Your task to perform on an android device: add a contact Image 0: 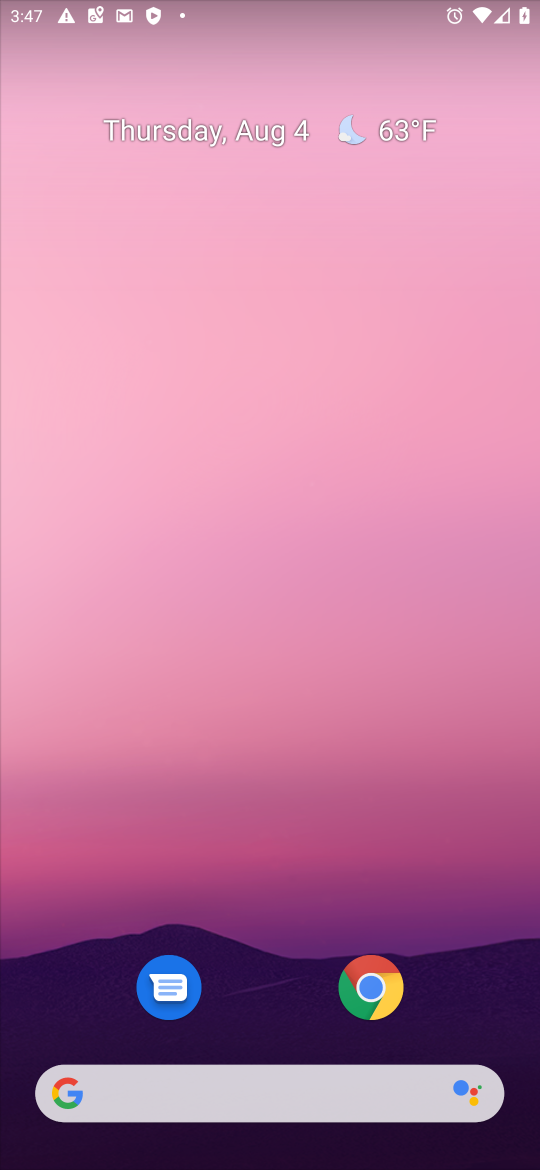
Step 0: drag from (264, 410) to (300, 304)
Your task to perform on an android device: add a contact Image 1: 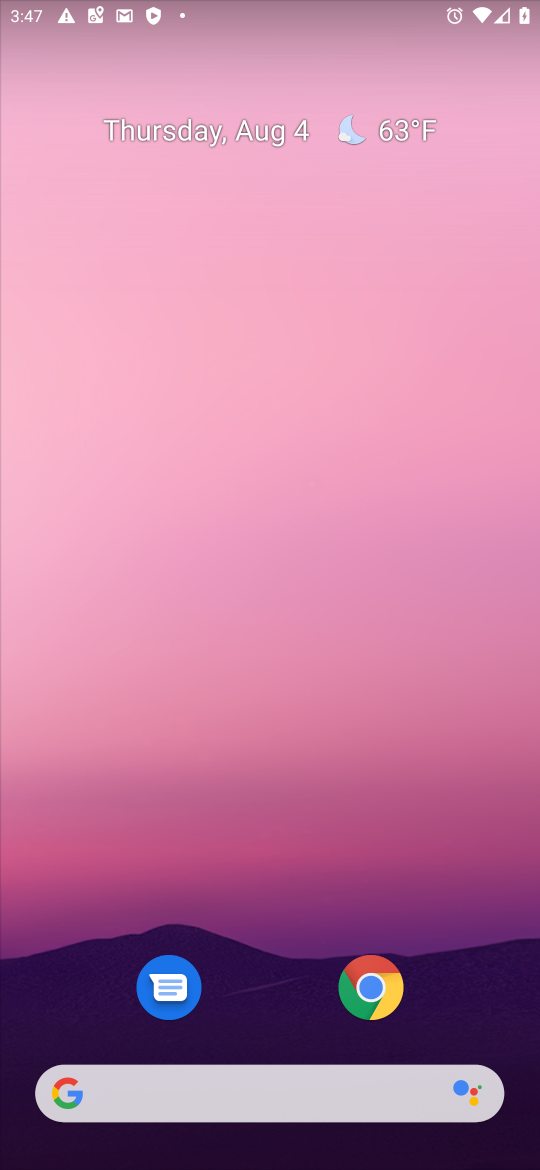
Step 1: drag from (241, 954) to (235, 268)
Your task to perform on an android device: add a contact Image 2: 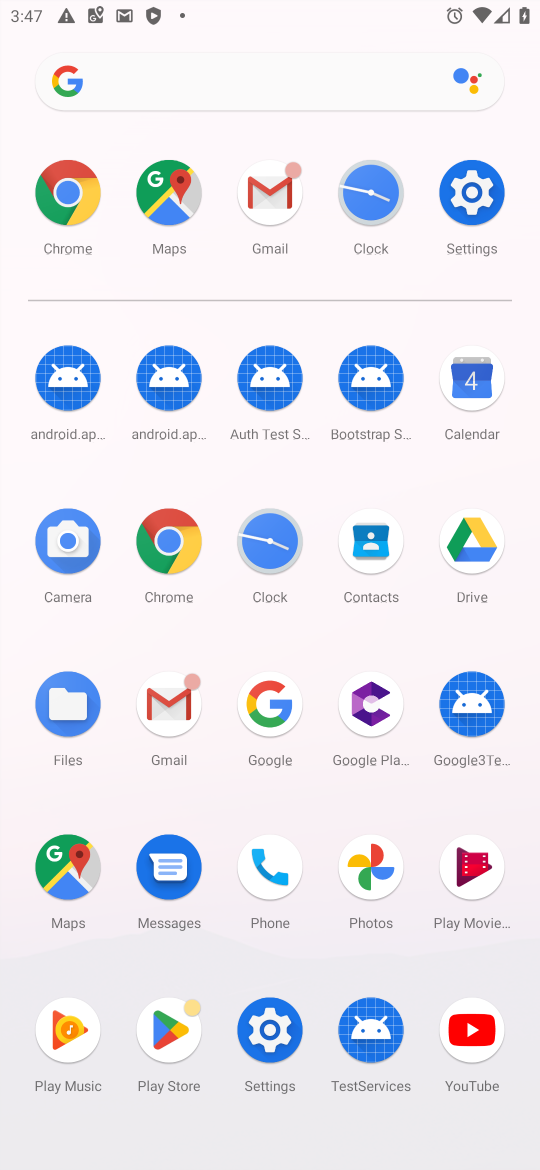
Step 2: click (369, 582)
Your task to perform on an android device: add a contact Image 3: 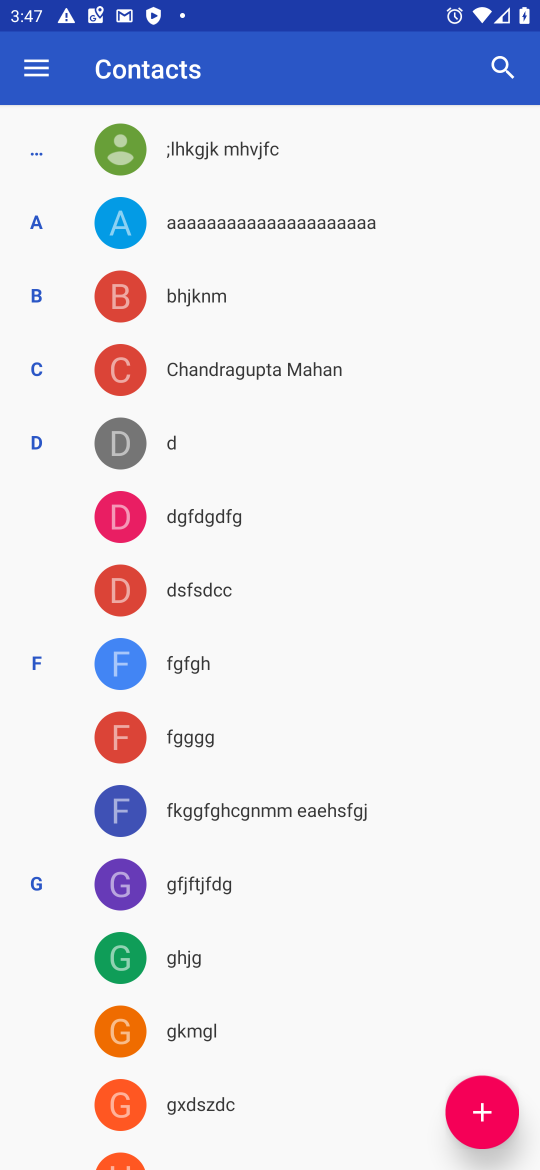
Step 3: click (500, 1120)
Your task to perform on an android device: add a contact Image 4: 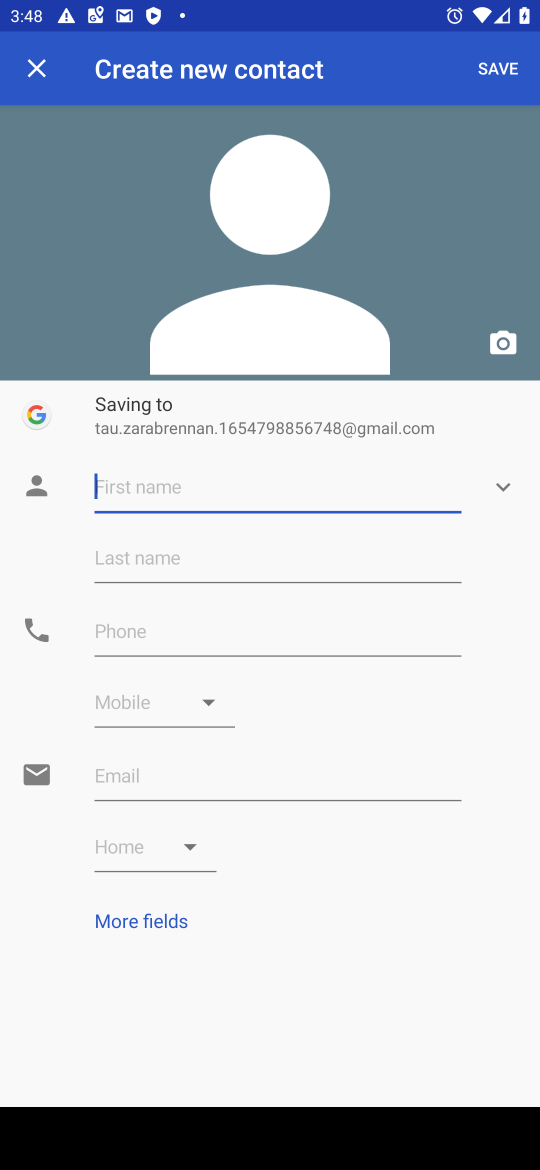
Step 4: type "Varun"
Your task to perform on an android device: add a contact Image 5: 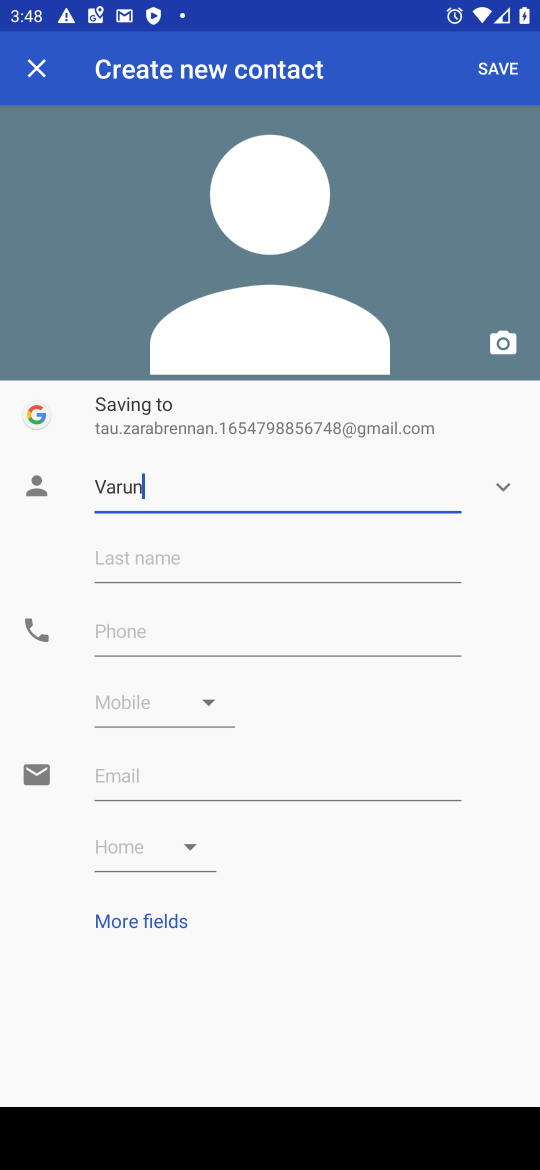
Step 5: click (190, 568)
Your task to perform on an android device: add a contact Image 6: 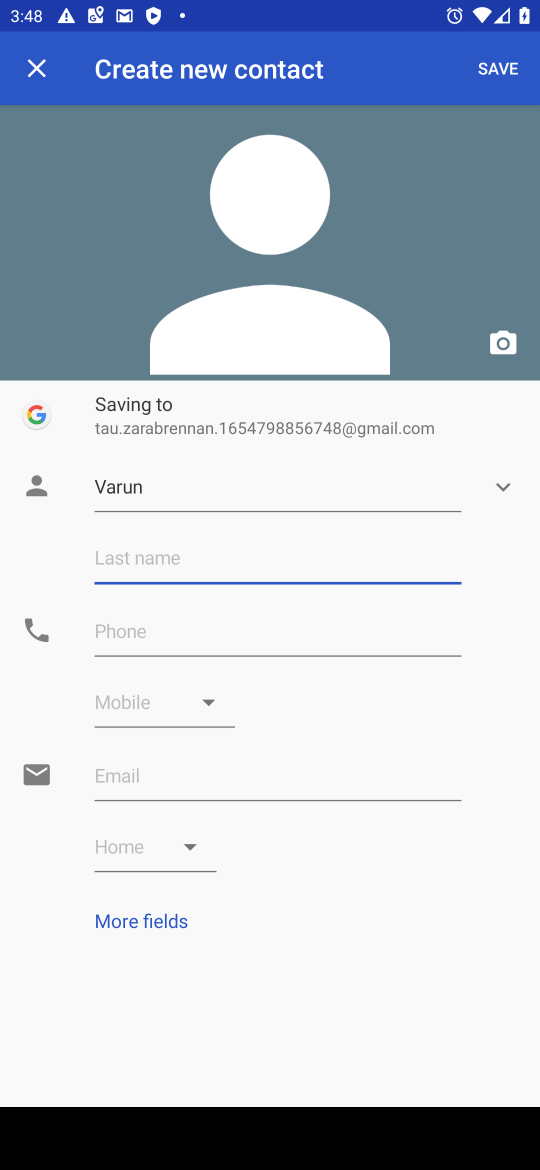
Step 6: type "Nirula"
Your task to perform on an android device: add a contact Image 7: 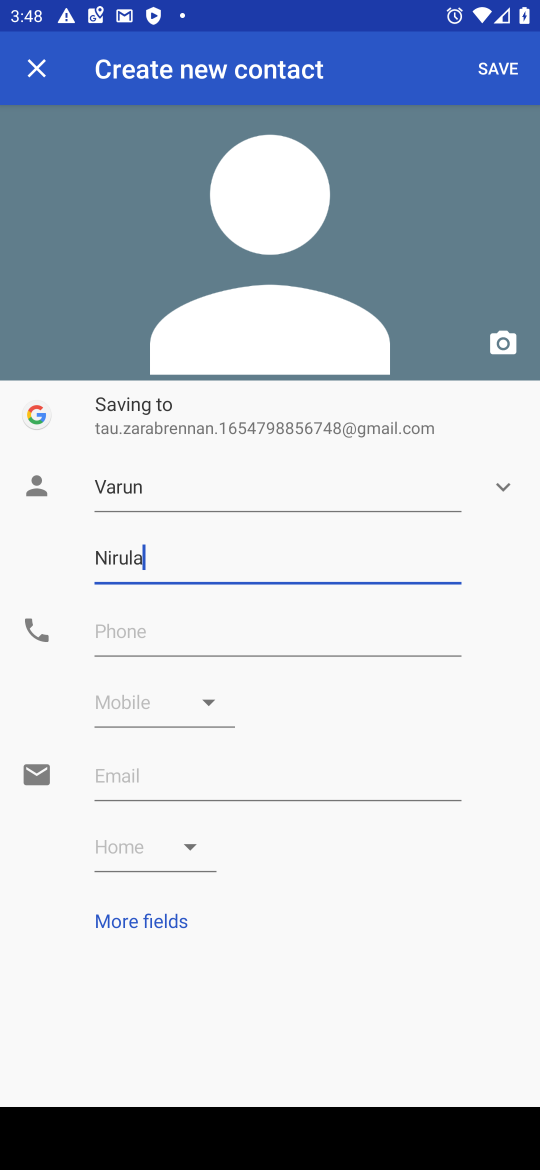
Step 7: click (182, 646)
Your task to perform on an android device: add a contact Image 8: 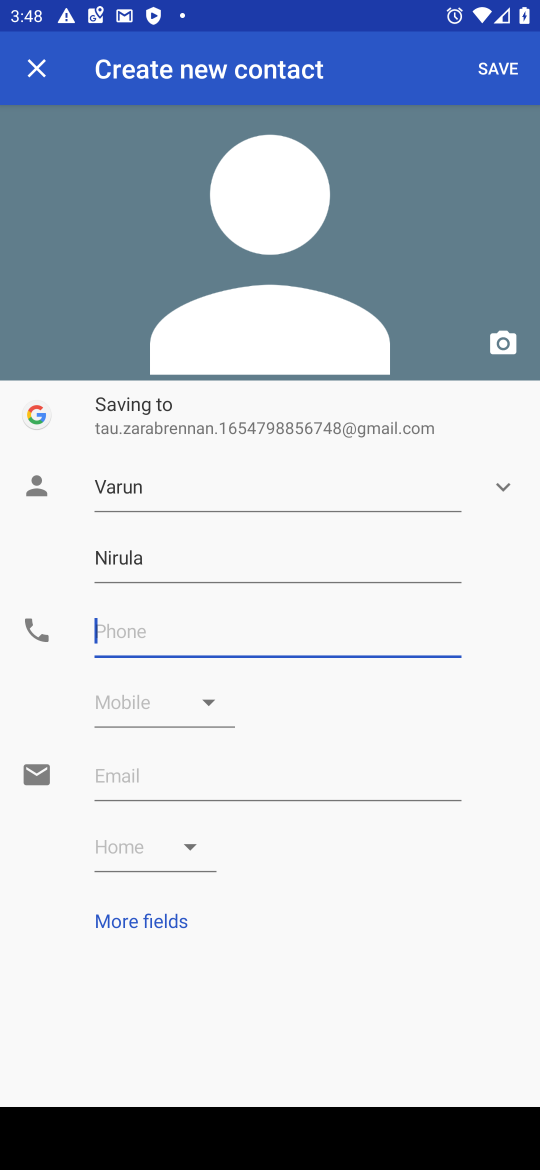
Step 8: type "9009876556"
Your task to perform on an android device: add a contact Image 9: 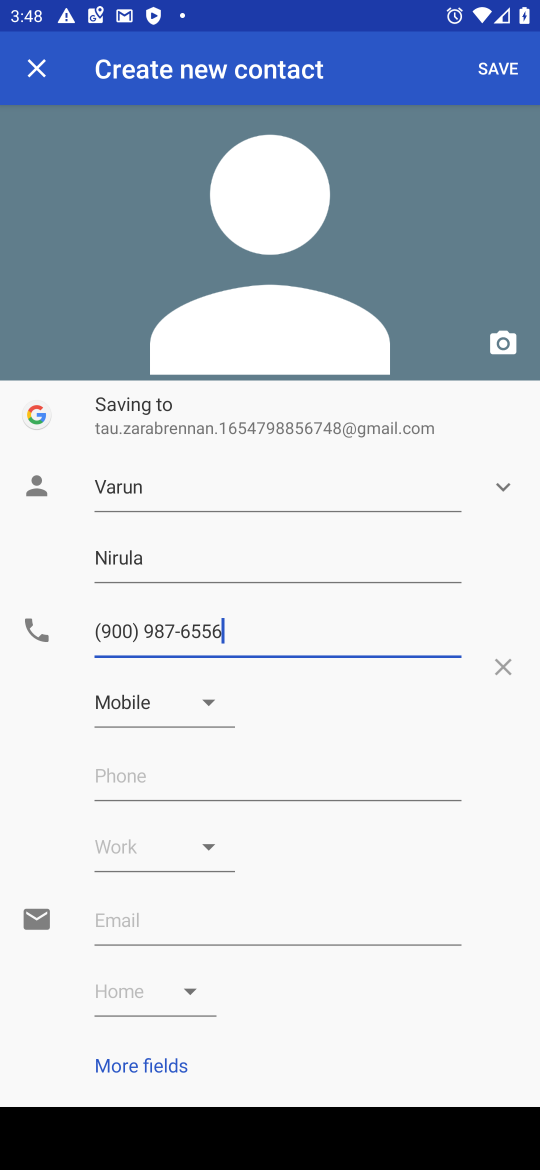
Step 9: click (502, 76)
Your task to perform on an android device: add a contact Image 10: 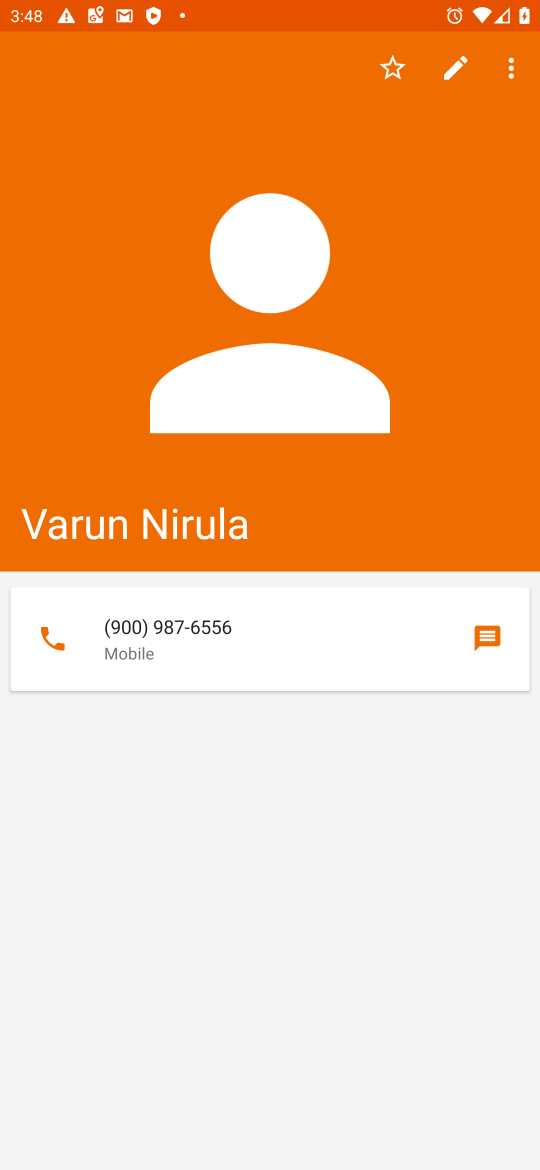
Step 10: task complete